Your task to perform on an android device: clear history in the chrome app Image 0: 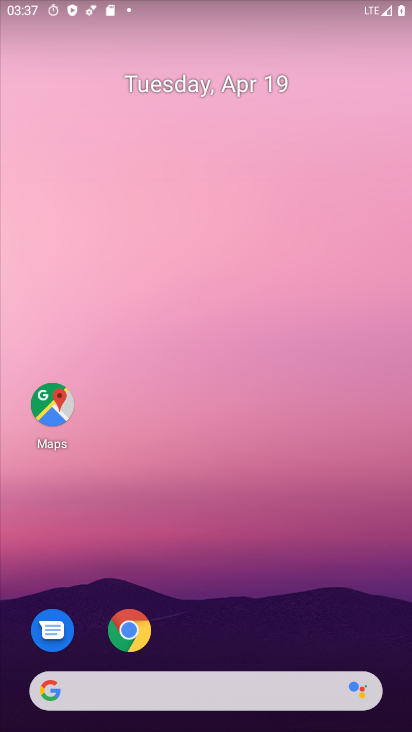
Step 0: click (315, 636)
Your task to perform on an android device: clear history in the chrome app Image 1: 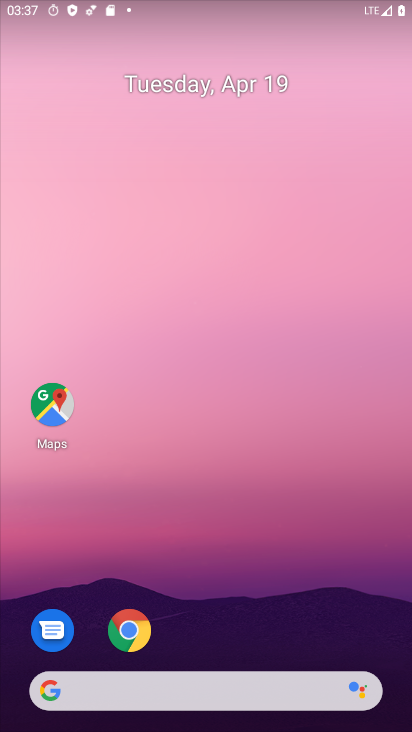
Step 1: click (141, 628)
Your task to perform on an android device: clear history in the chrome app Image 2: 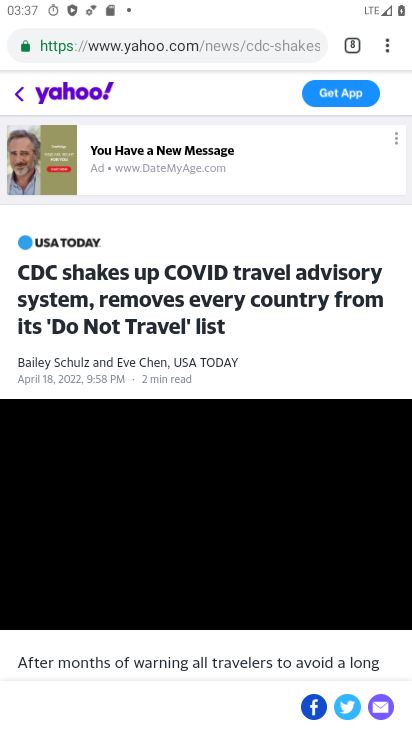
Step 2: click (385, 34)
Your task to perform on an android device: clear history in the chrome app Image 3: 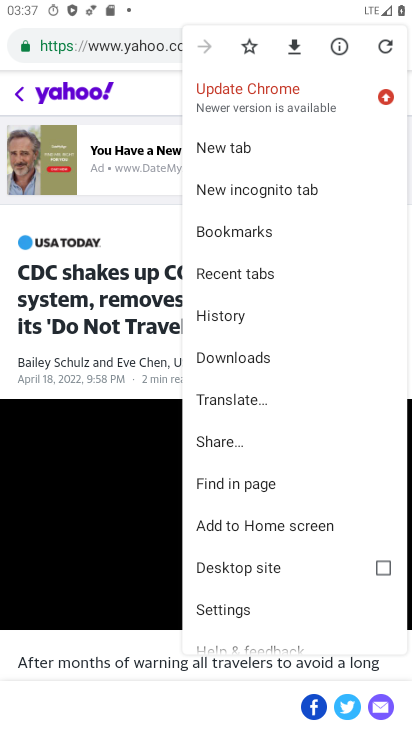
Step 3: click (255, 307)
Your task to perform on an android device: clear history in the chrome app Image 4: 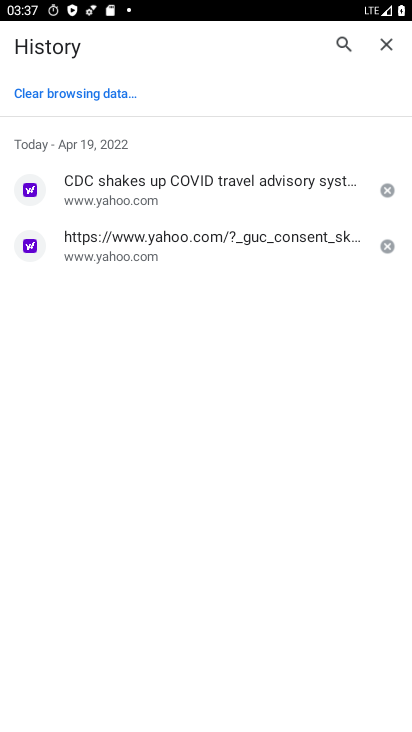
Step 4: click (120, 93)
Your task to perform on an android device: clear history in the chrome app Image 5: 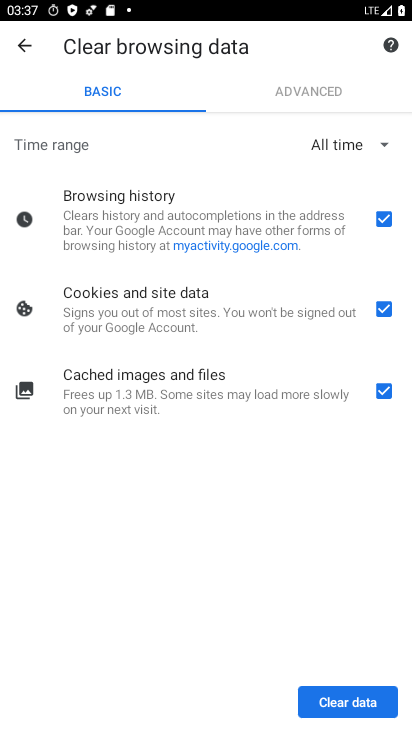
Step 5: click (325, 710)
Your task to perform on an android device: clear history in the chrome app Image 6: 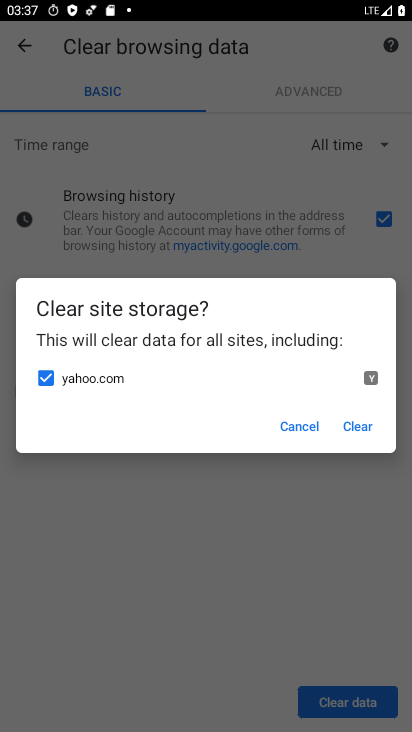
Step 6: click (369, 423)
Your task to perform on an android device: clear history in the chrome app Image 7: 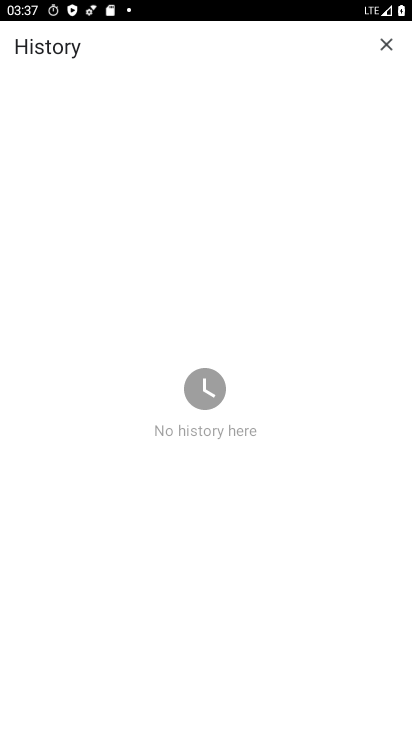
Step 7: task complete